Your task to perform on an android device: toggle airplane mode Image 0: 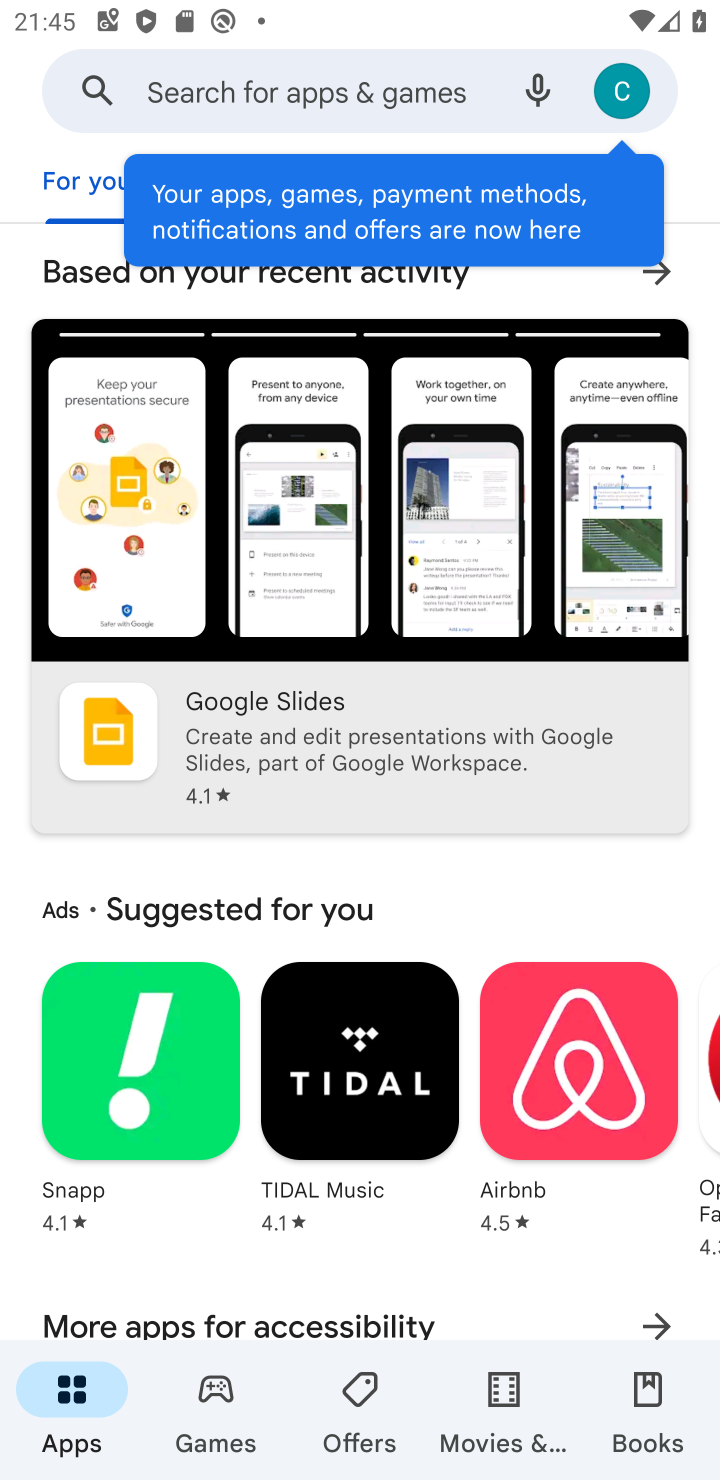
Step 0: press home button
Your task to perform on an android device: toggle airplane mode Image 1: 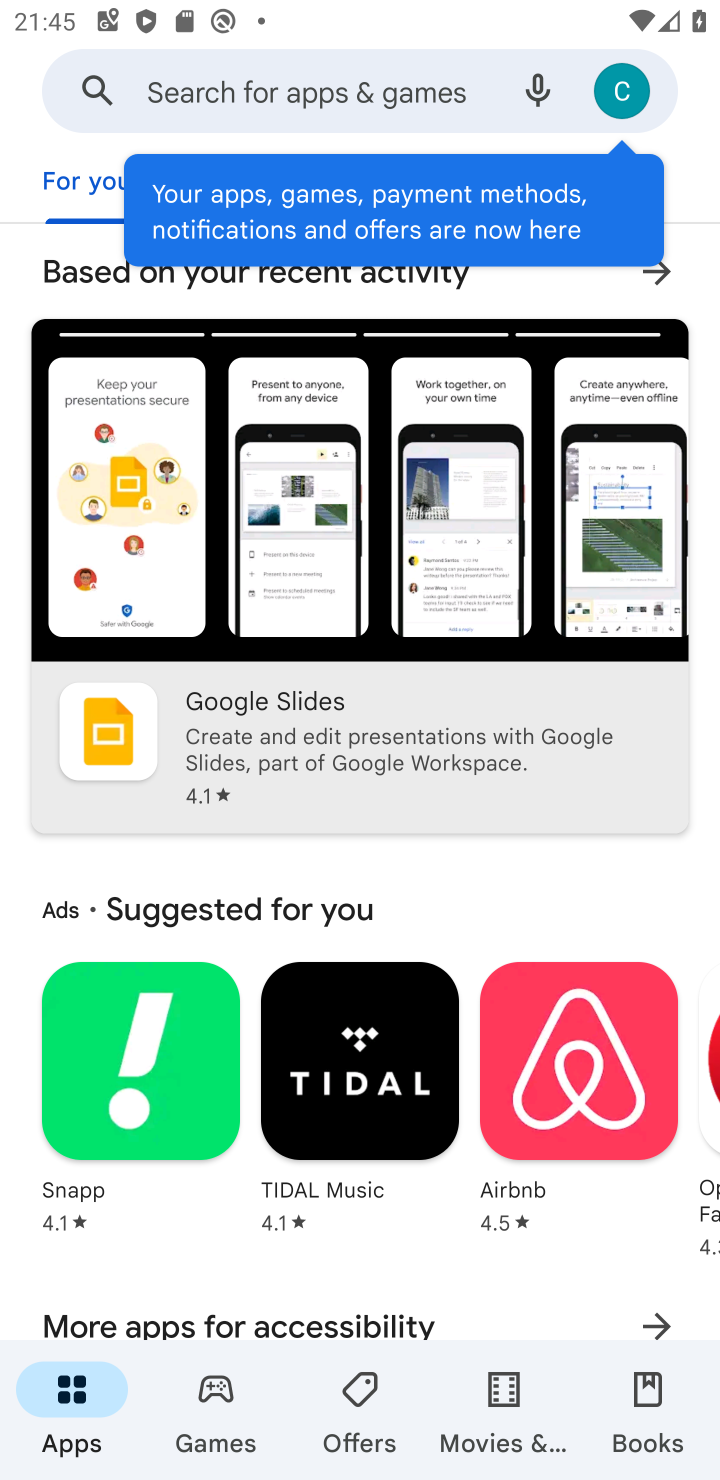
Step 1: press home button
Your task to perform on an android device: toggle airplane mode Image 2: 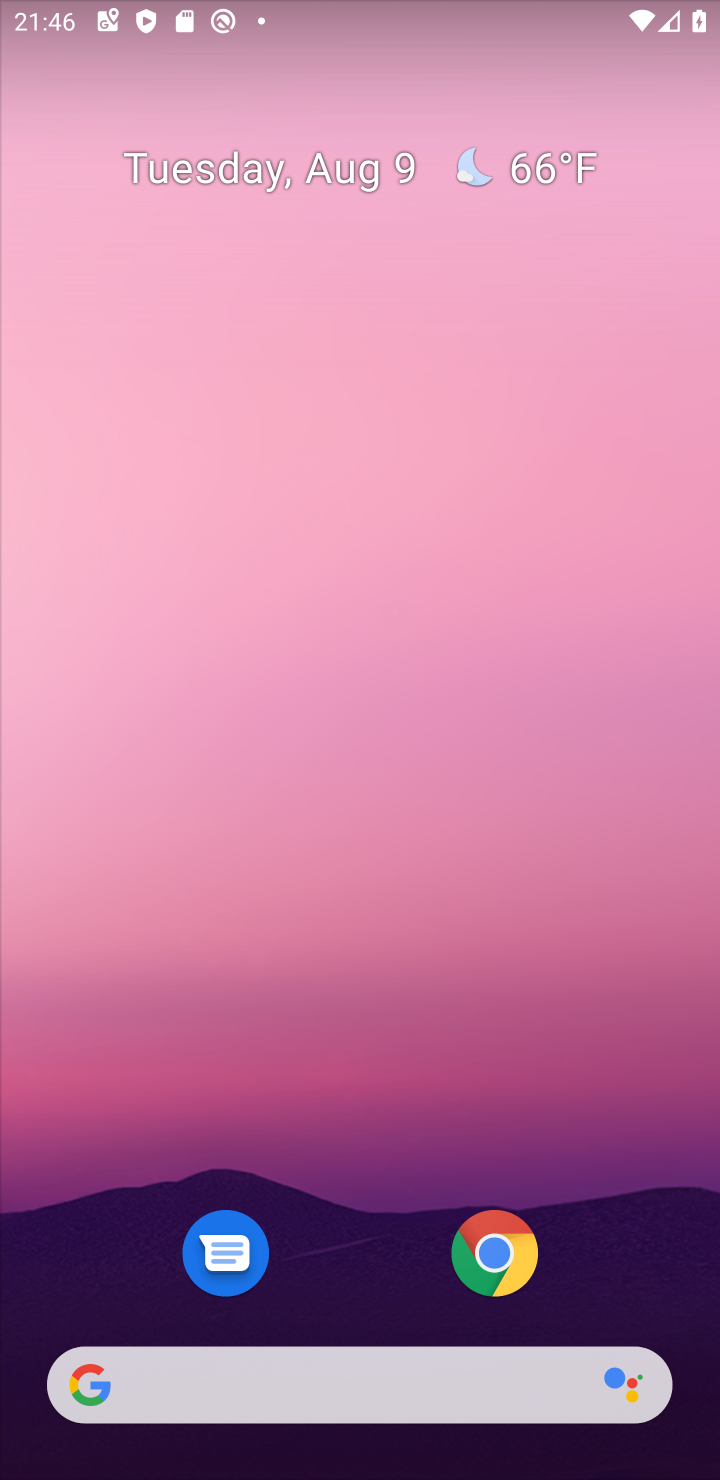
Step 2: drag from (351, 1241) to (318, 17)
Your task to perform on an android device: toggle airplane mode Image 3: 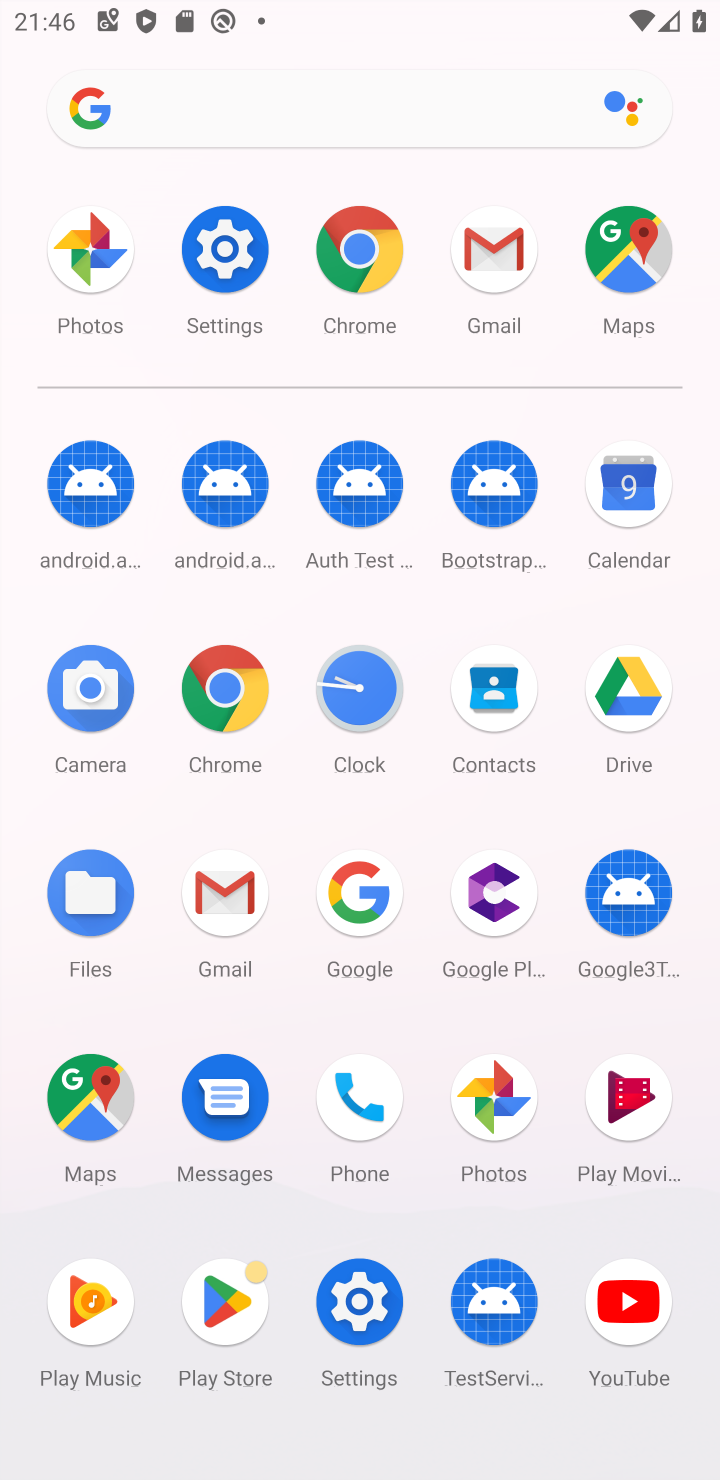
Step 3: click (223, 254)
Your task to perform on an android device: toggle airplane mode Image 4: 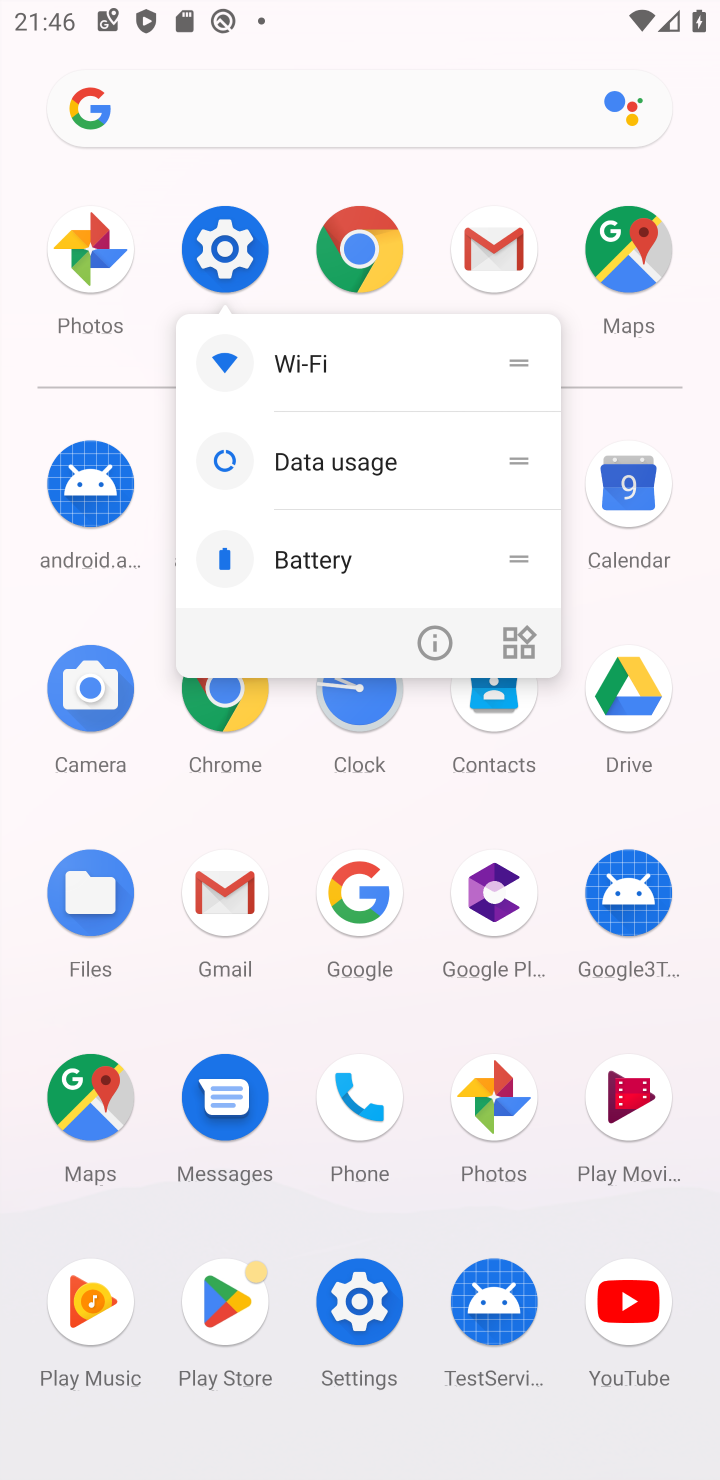
Step 4: click (358, 1290)
Your task to perform on an android device: toggle airplane mode Image 5: 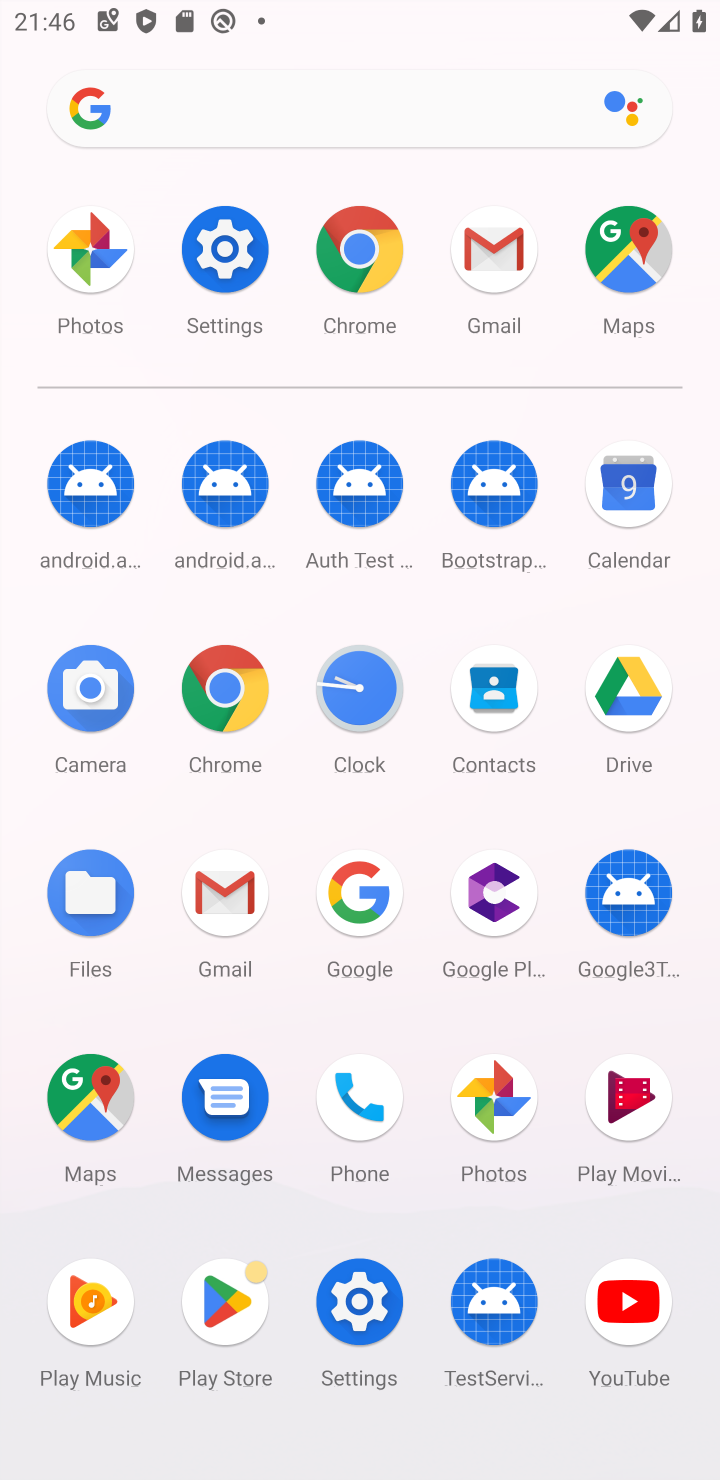
Step 5: click (358, 1298)
Your task to perform on an android device: toggle airplane mode Image 6: 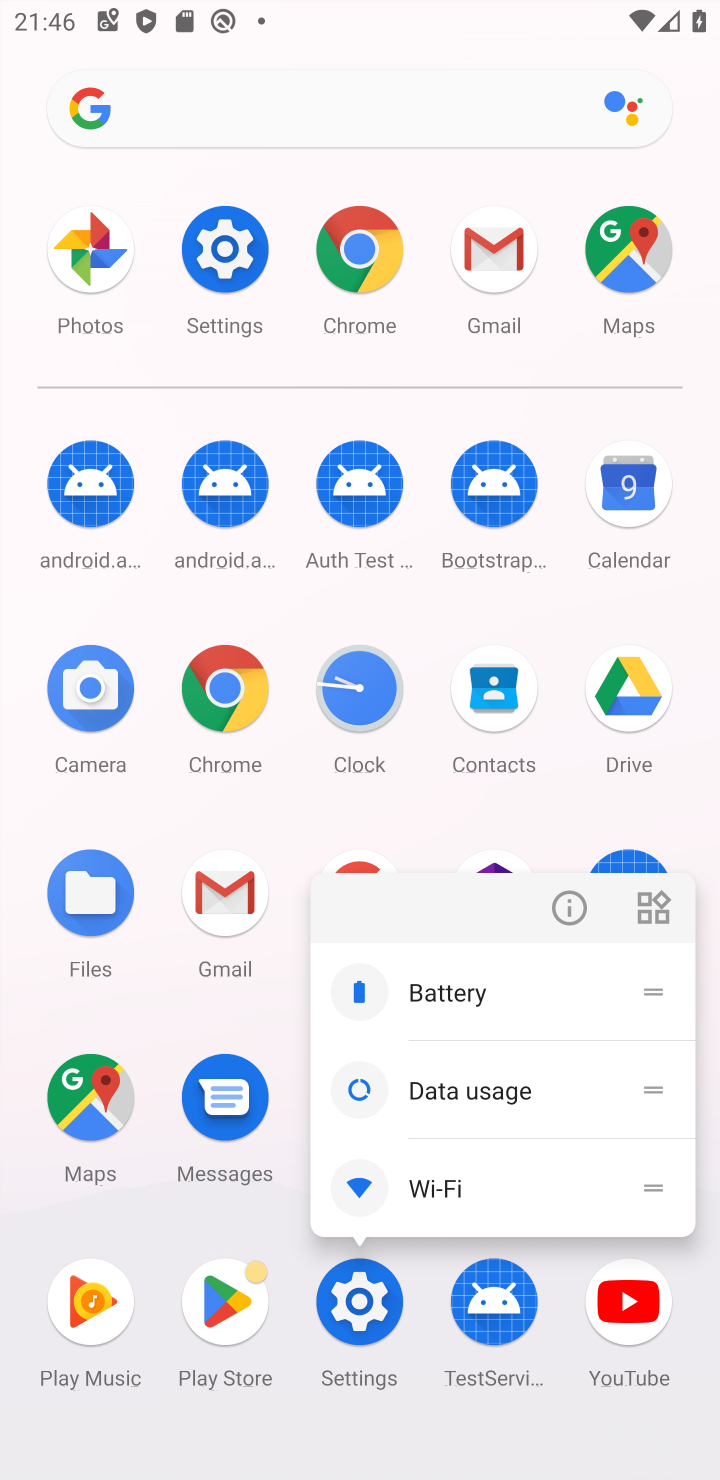
Step 6: click (358, 1298)
Your task to perform on an android device: toggle airplane mode Image 7: 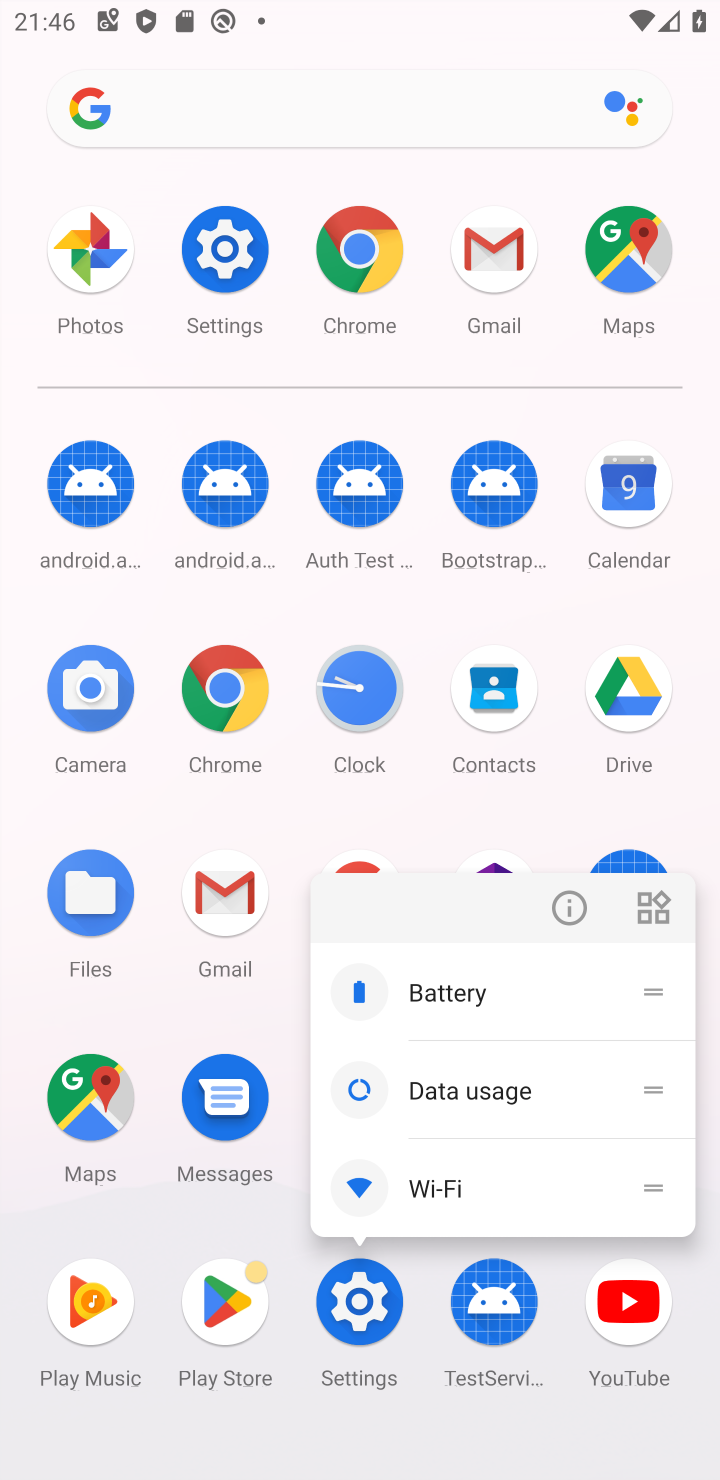
Step 7: click (358, 1297)
Your task to perform on an android device: toggle airplane mode Image 8: 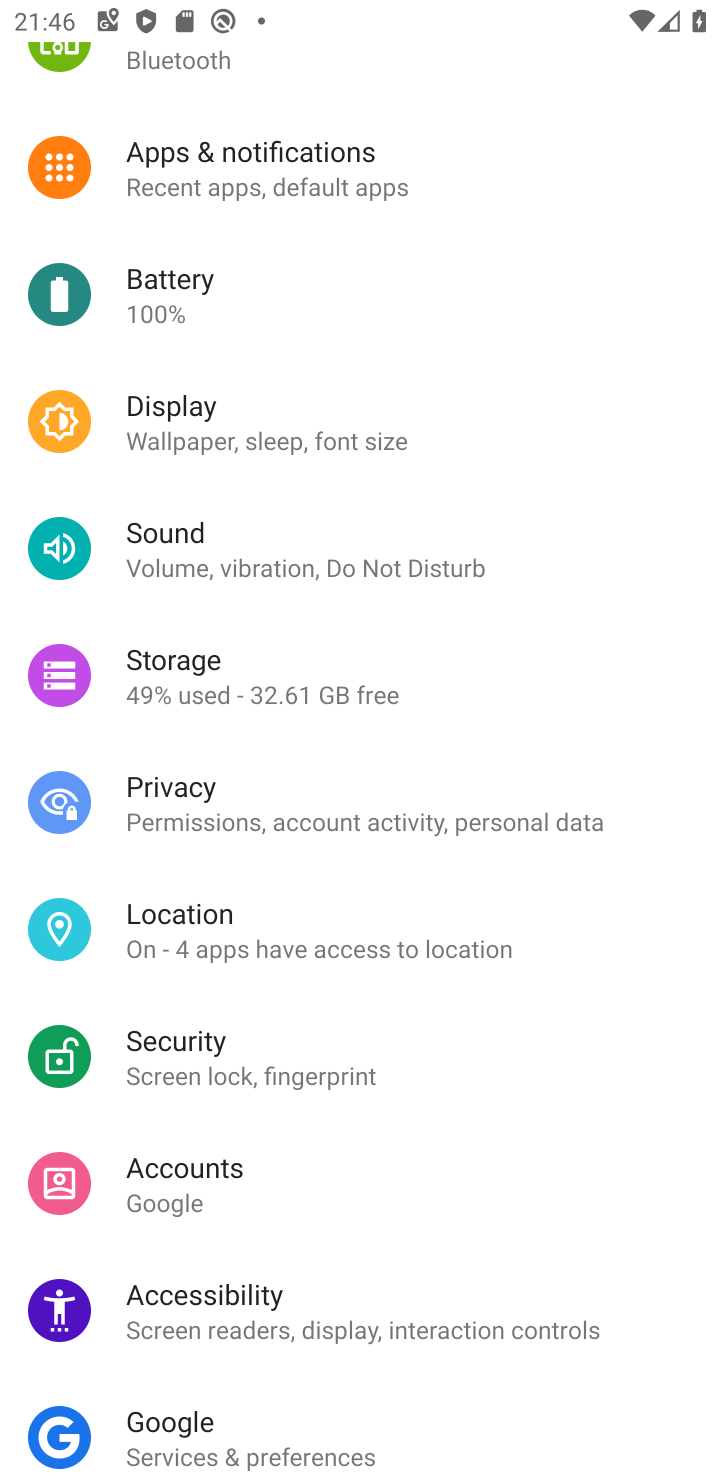
Step 8: drag from (488, 175) to (426, 1249)
Your task to perform on an android device: toggle airplane mode Image 9: 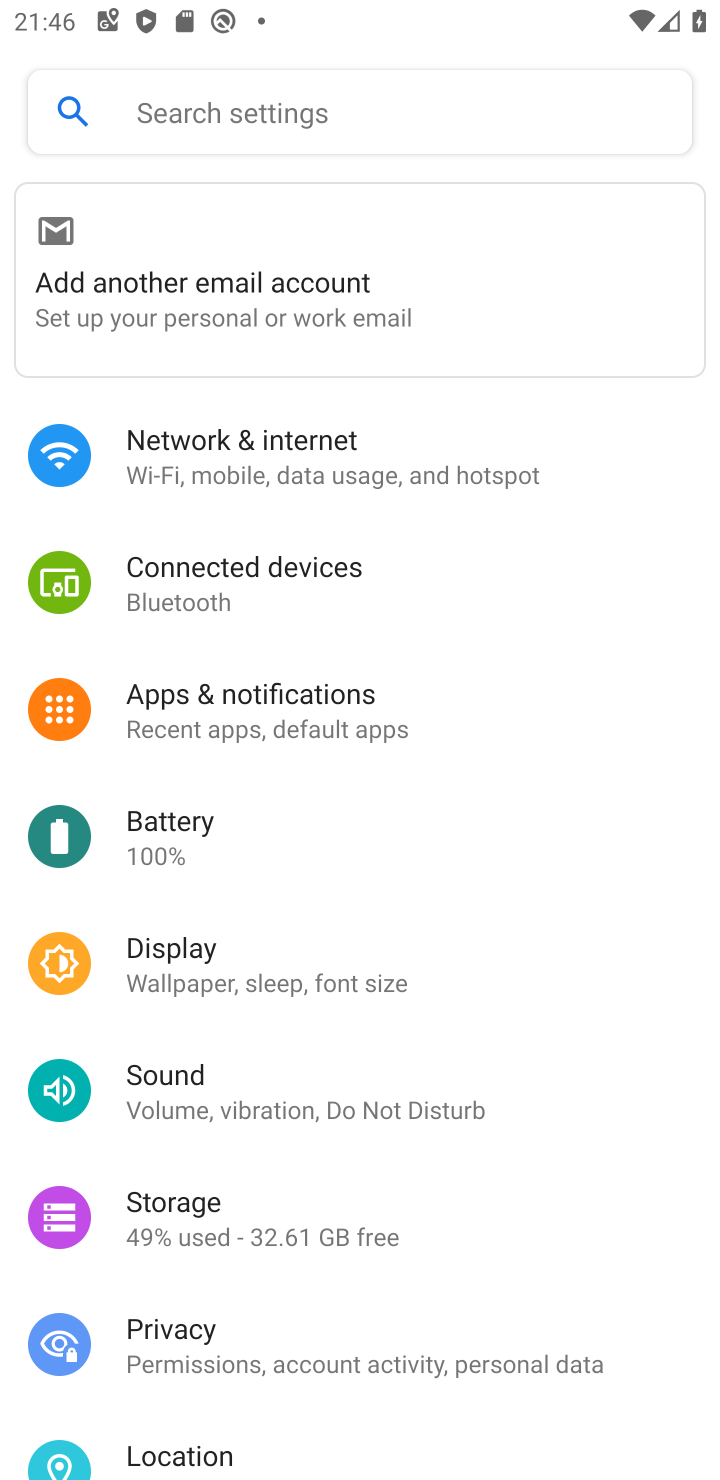
Step 9: click (299, 457)
Your task to perform on an android device: toggle airplane mode Image 10: 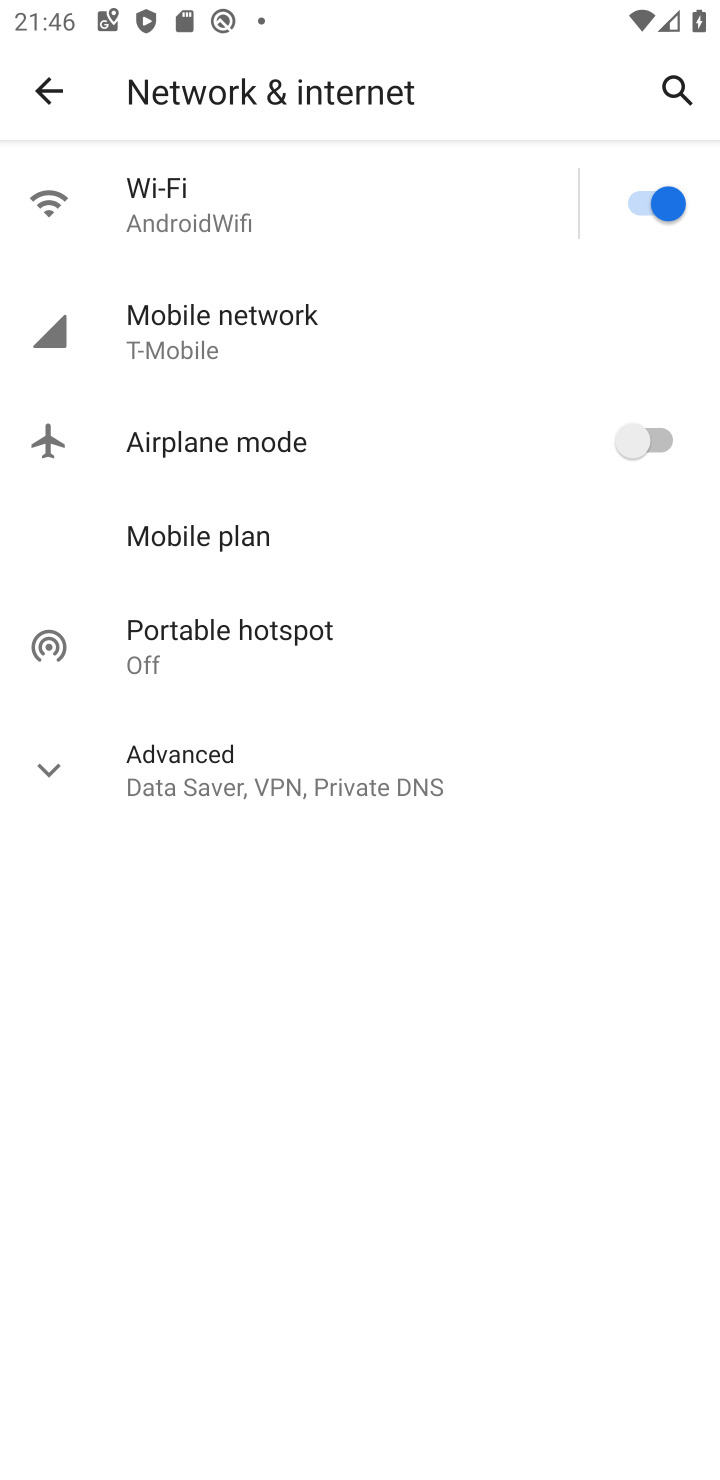
Step 10: click (618, 420)
Your task to perform on an android device: toggle airplane mode Image 11: 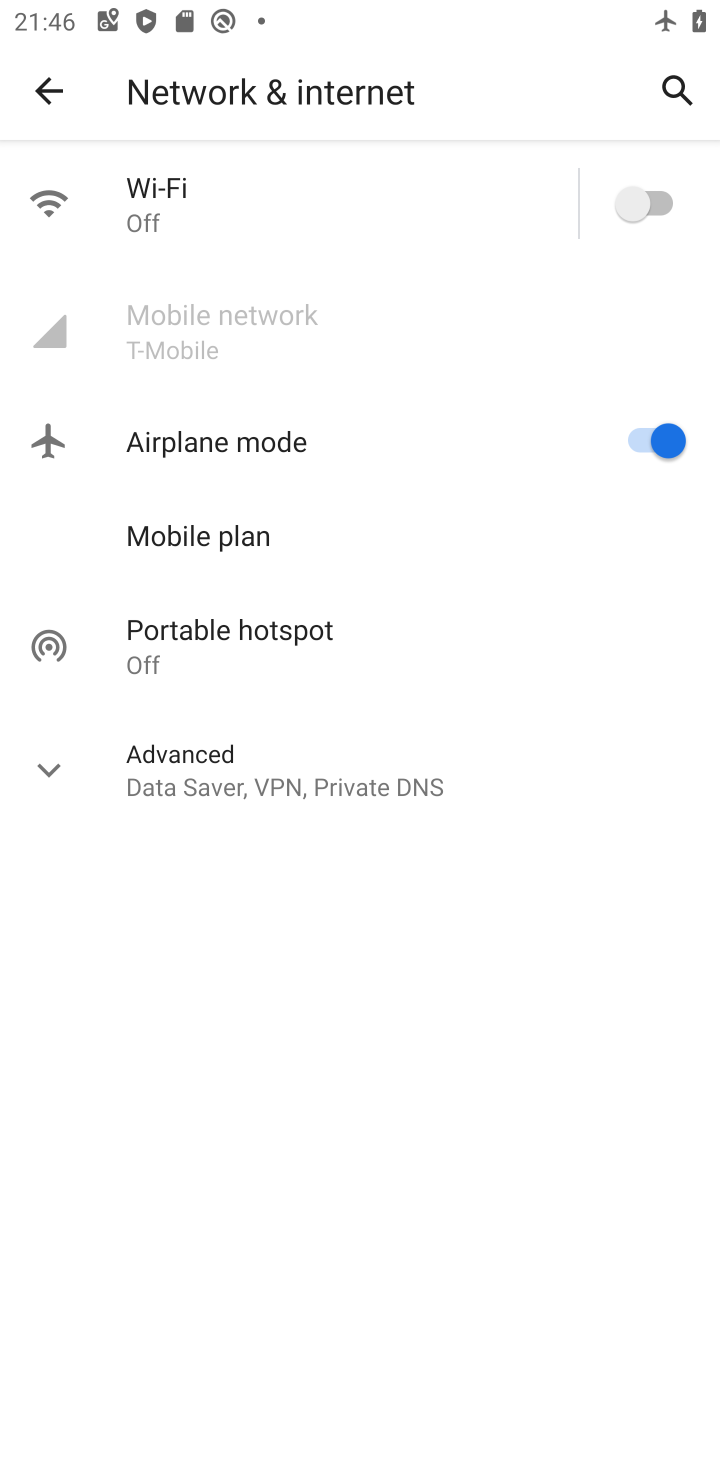
Step 11: task complete